Your task to perform on an android device: Find coffee shops on Maps Image 0: 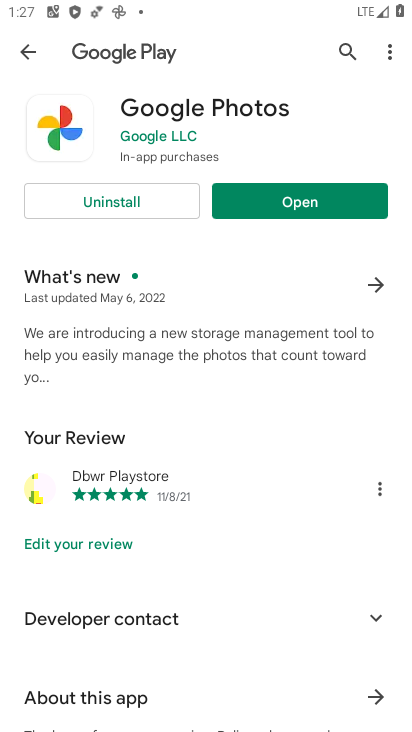
Step 0: press home button
Your task to perform on an android device: Find coffee shops on Maps Image 1: 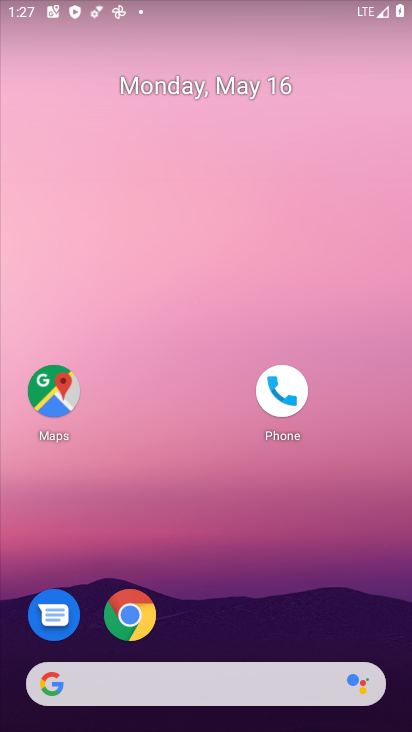
Step 1: drag from (302, 705) to (293, 140)
Your task to perform on an android device: Find coffee shops on Maps Image 2: 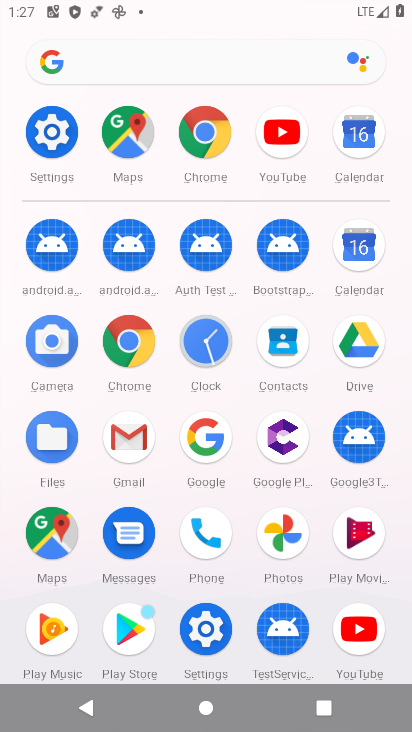
Step 2: click (47, 546)
Your task to perform on an android device: Find coffee shops on Maps Image 3: 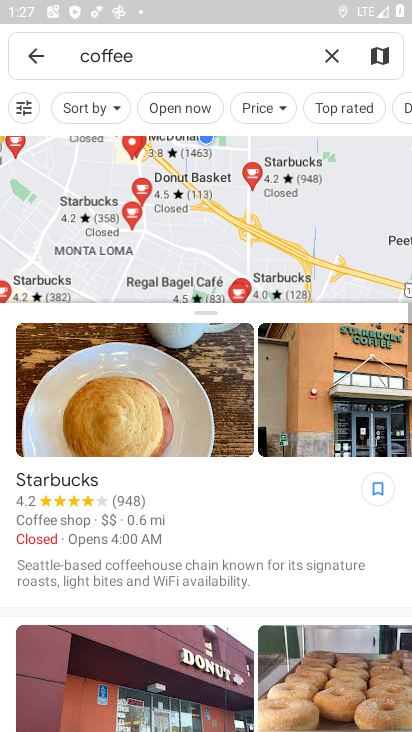
Step 3: click (134, 41)
Your task to perform on an android device: Find coffee shops on Maps Image 4: 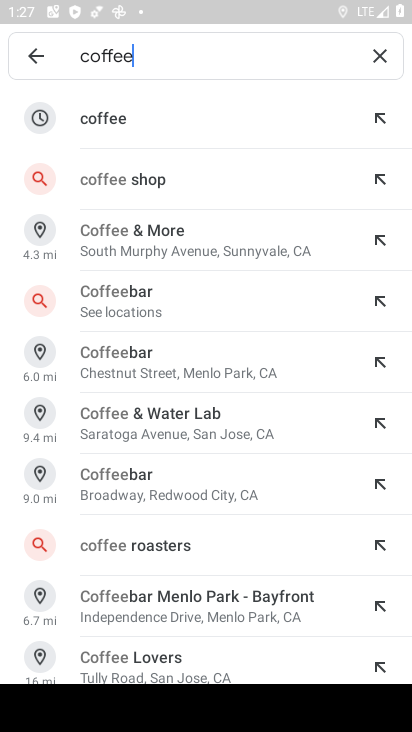
Step 4: click (194, 190)
Your task to perform on an android device: Find coffee shops on Maps Image 5: 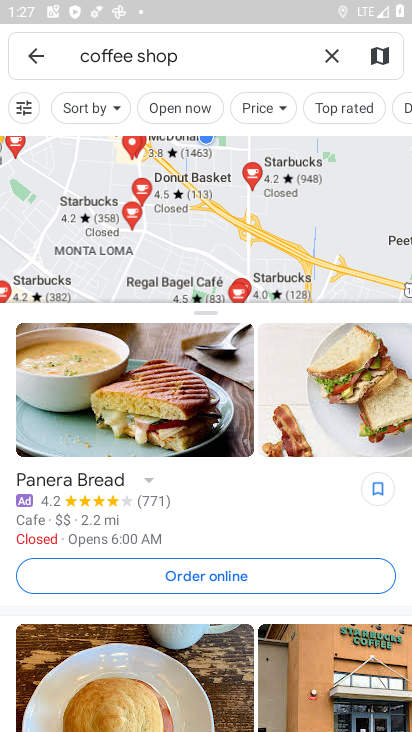
Step 5: task complete